Your task to perform on an android device: turn on wifi Image 0: 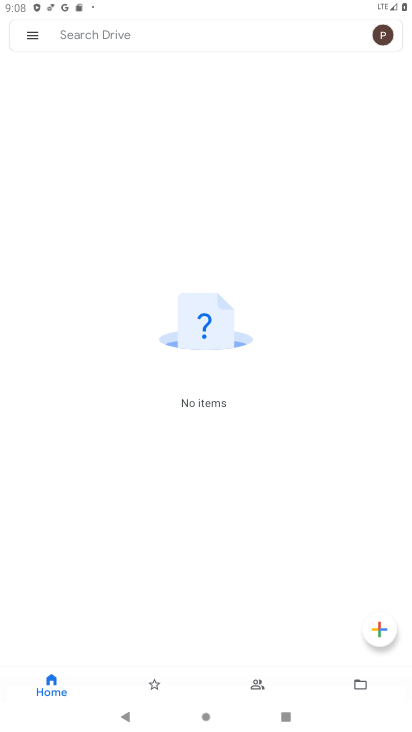
Step 0: press home button
Your task to perform on an android device: turn on wifi Image 1: 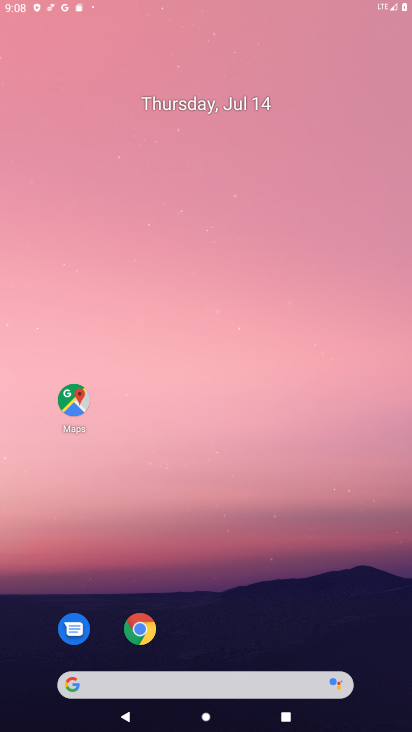
Step 1: drag from (159, 12) to (71, 468)
Your task to perform on an android device: turn on wifi Image 2: 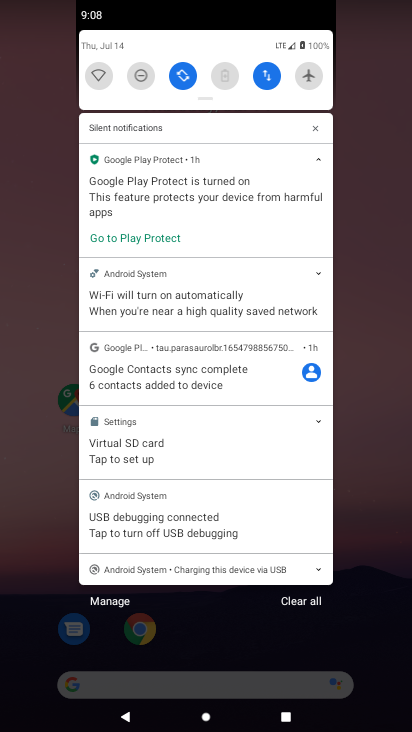
Step 2: click (102, 83)
Your task to perform on an android device: turn on wifi Image 3: 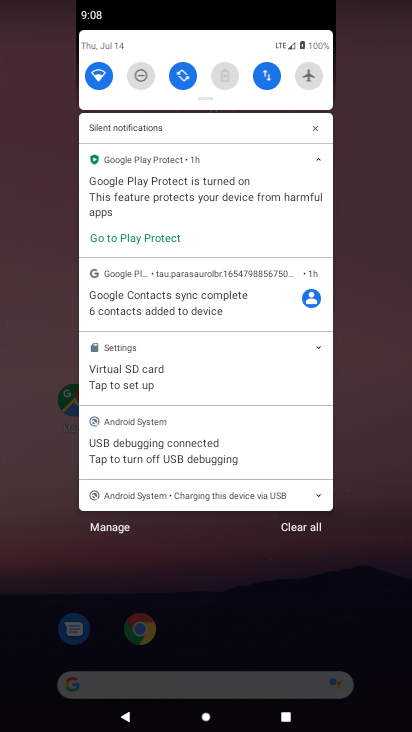
Step 3: task complete